Your task to perform on an android device: open app "HBO Max: Stream TV & Movies" (install if not already installed) Image 0: 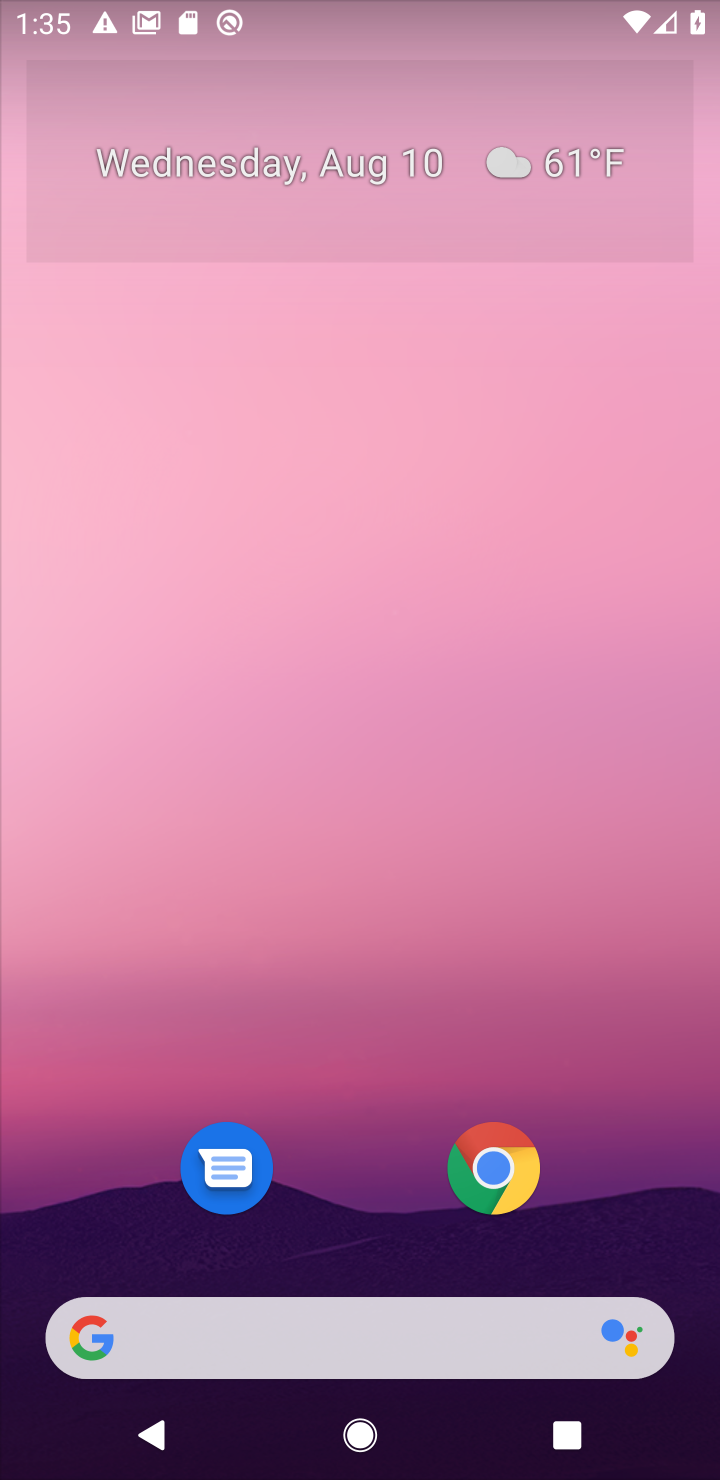
Step 0: drag from (336, 1344) to (321, 373)
Your task to perform on an android device: open app "HBO Max: Stream TV & Movies" (install if not already installed) Image 1: 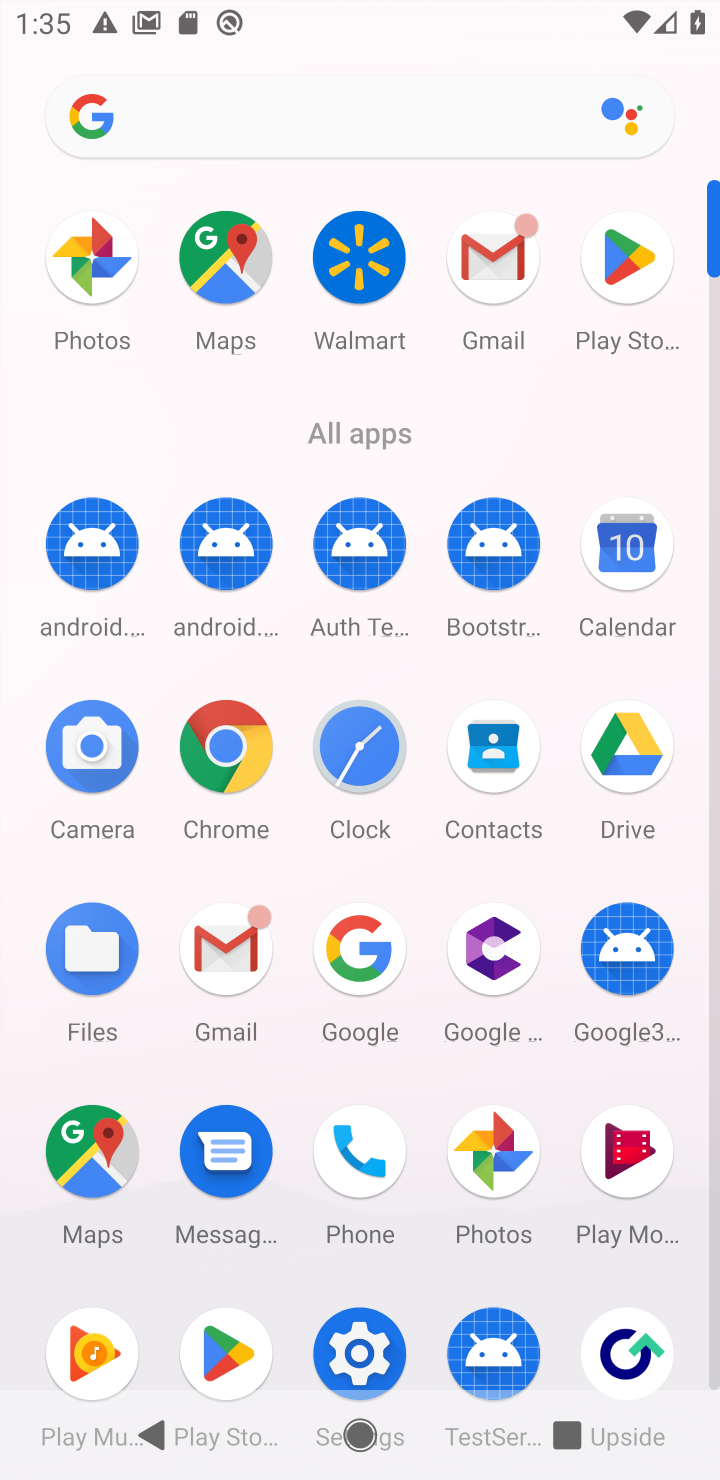
Step 1: click (622, 263)
Your task to perform on an android device: open app "HBO Max: Stream TV & Movies" (install if not already installed) Image 2: 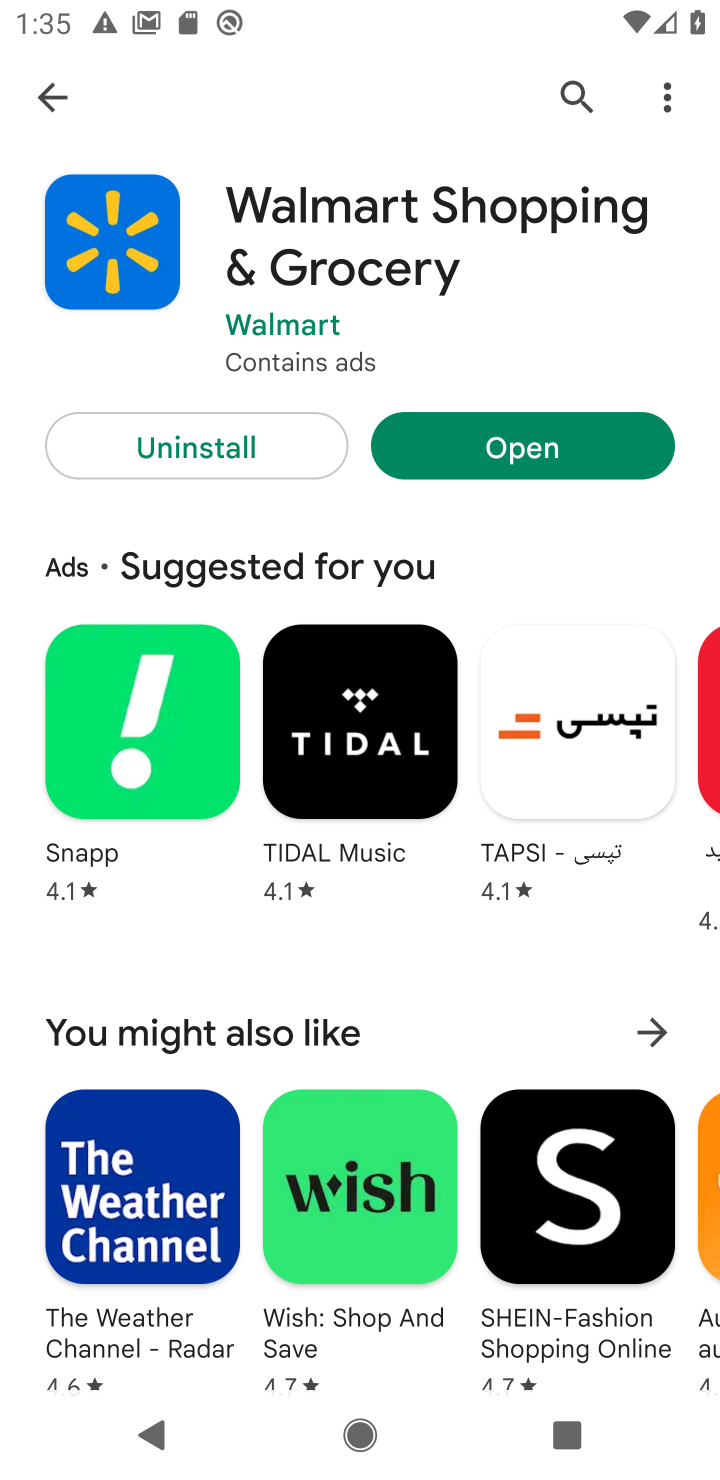
Step 2: press back button
Your task to perform on an android device: open app "HBO Max: Stream TV & Movies" (install if not already installed) Image 3: 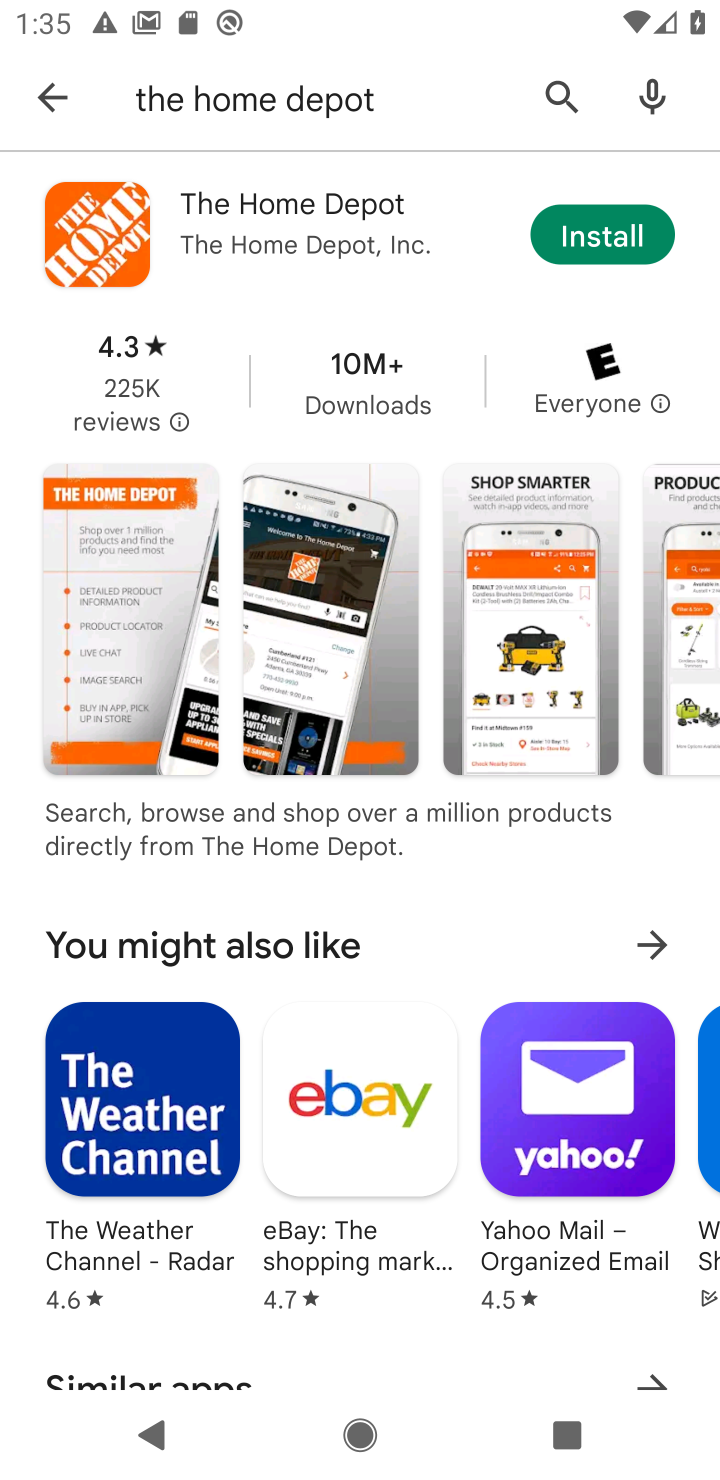
Step 3: press back button
Your task to perform on an android device: open app "HBO Max: Stream TV & Movies" (install if not already installed) Image 4: 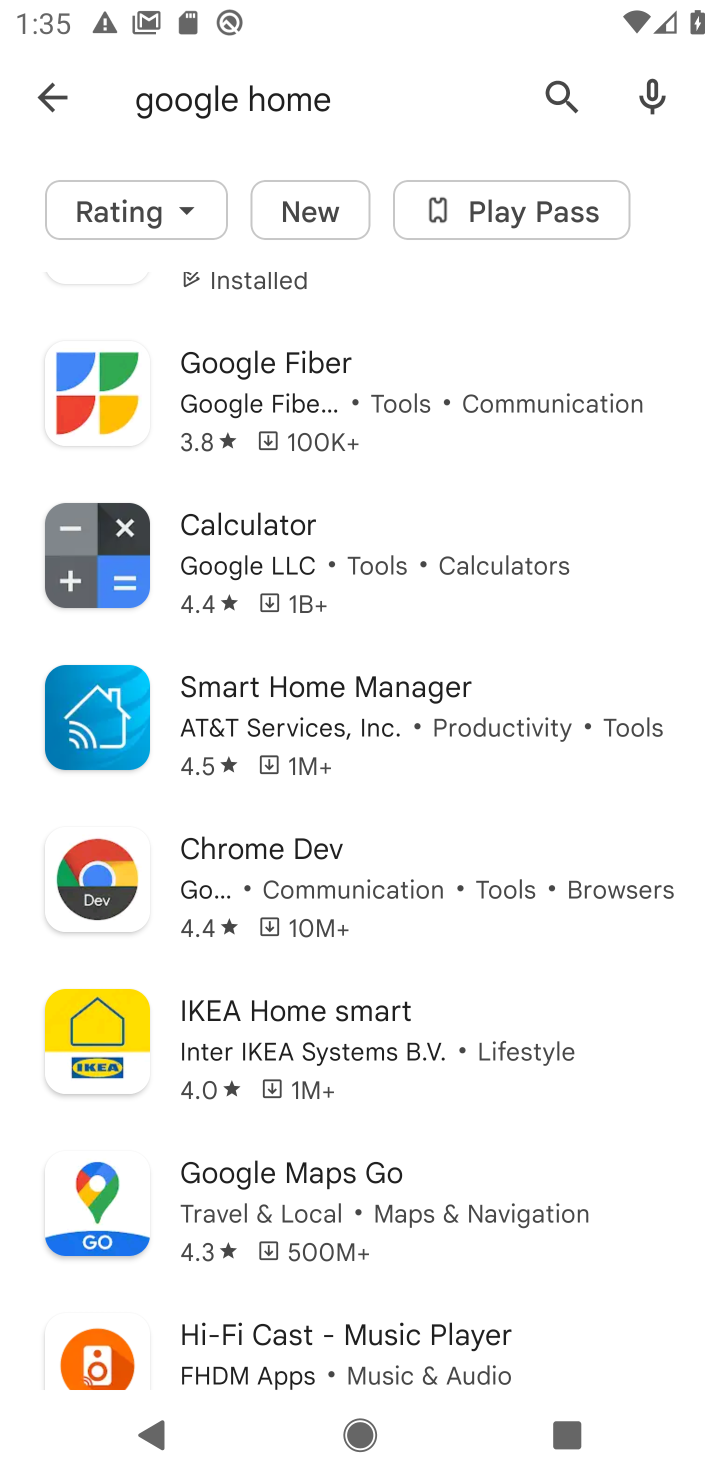
Step 4: press back button
Your task to perform on an android device: open app "HBO Max: Stream TV & Movies" (install if not already installed) Image 5: 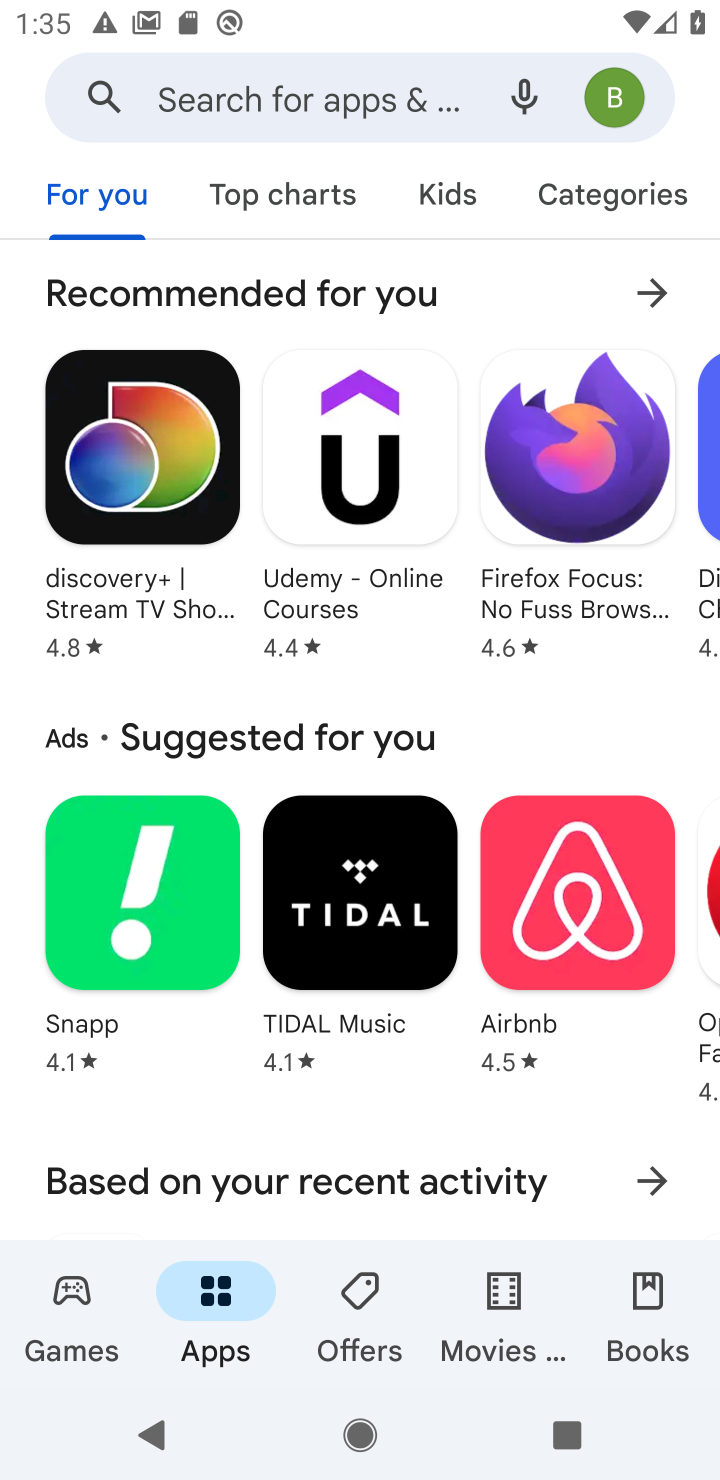
Step 5: click (352, 104)
Your task to perform on an android device: open app "HBO Max: Stream TV & Movies" (install if not already installed) Image 6: 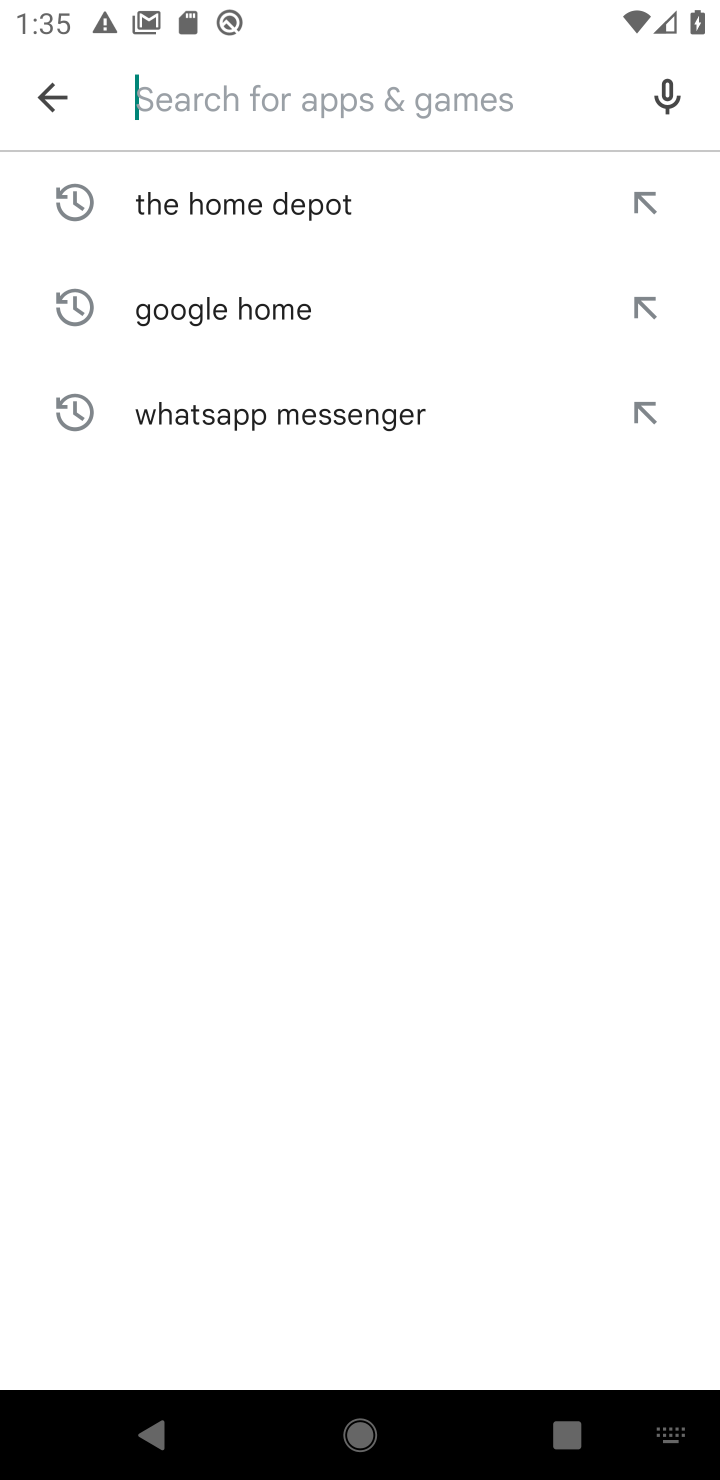
Step 6: type "HBO Max: Stream TV & Movies"
Your task to perform on an android device: open app "HBO Max: Stream TV & Movies" (install if not already installed) Image 7: 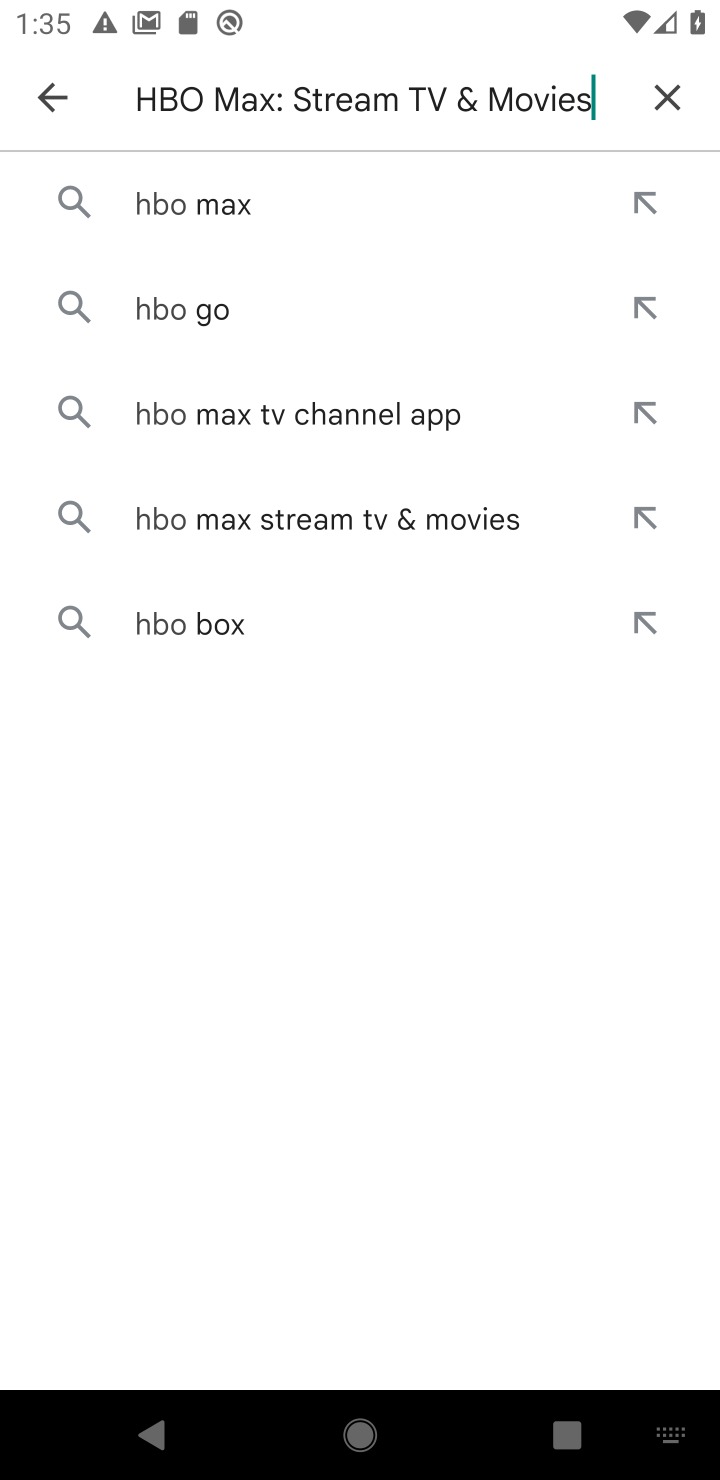
Step 7: type ""
Your task to perform on an android device: open app "HBO Max: Stream TV & Movies" (install if not already installed) Image 8: 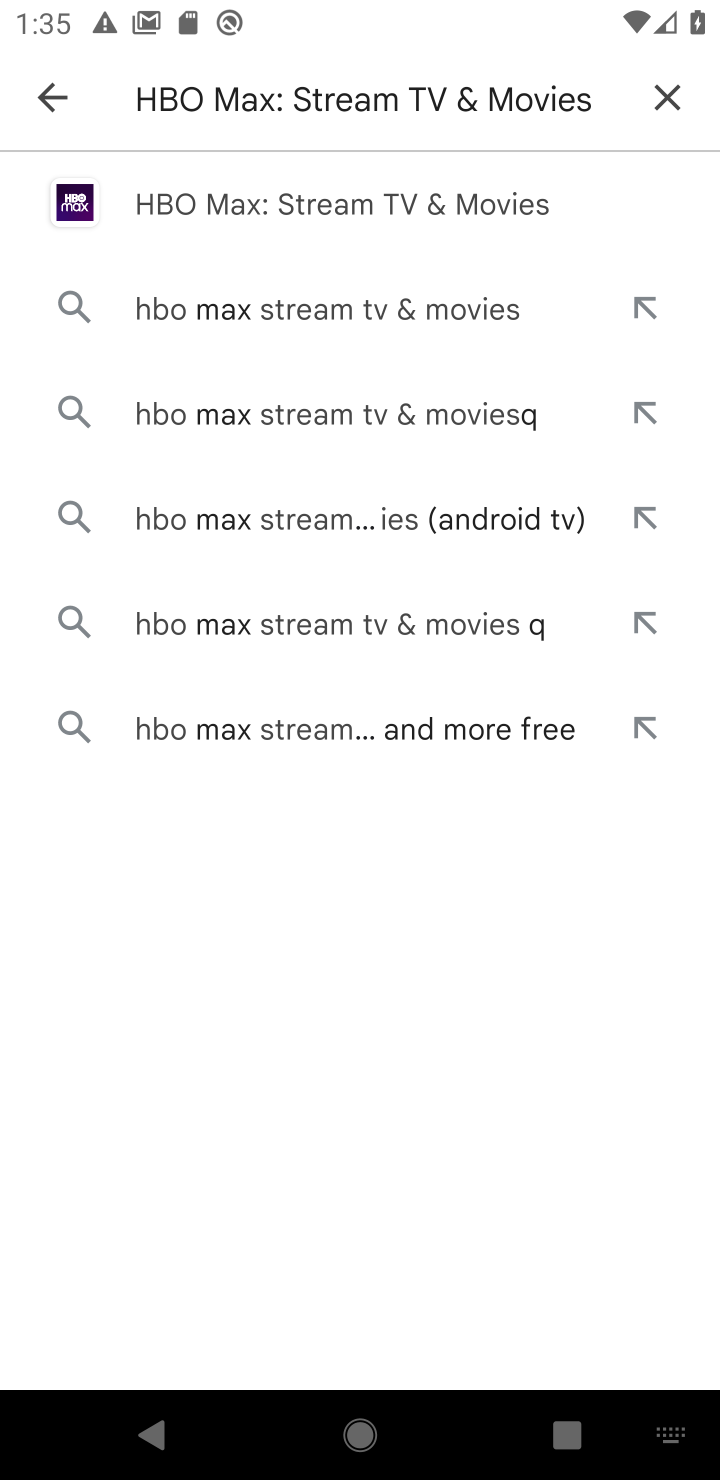
Step 8: click (341, 216)
Your task to perform on an android device: open app "HBO Max: Stream TV & Movies" (install if not already installed) Image 9: 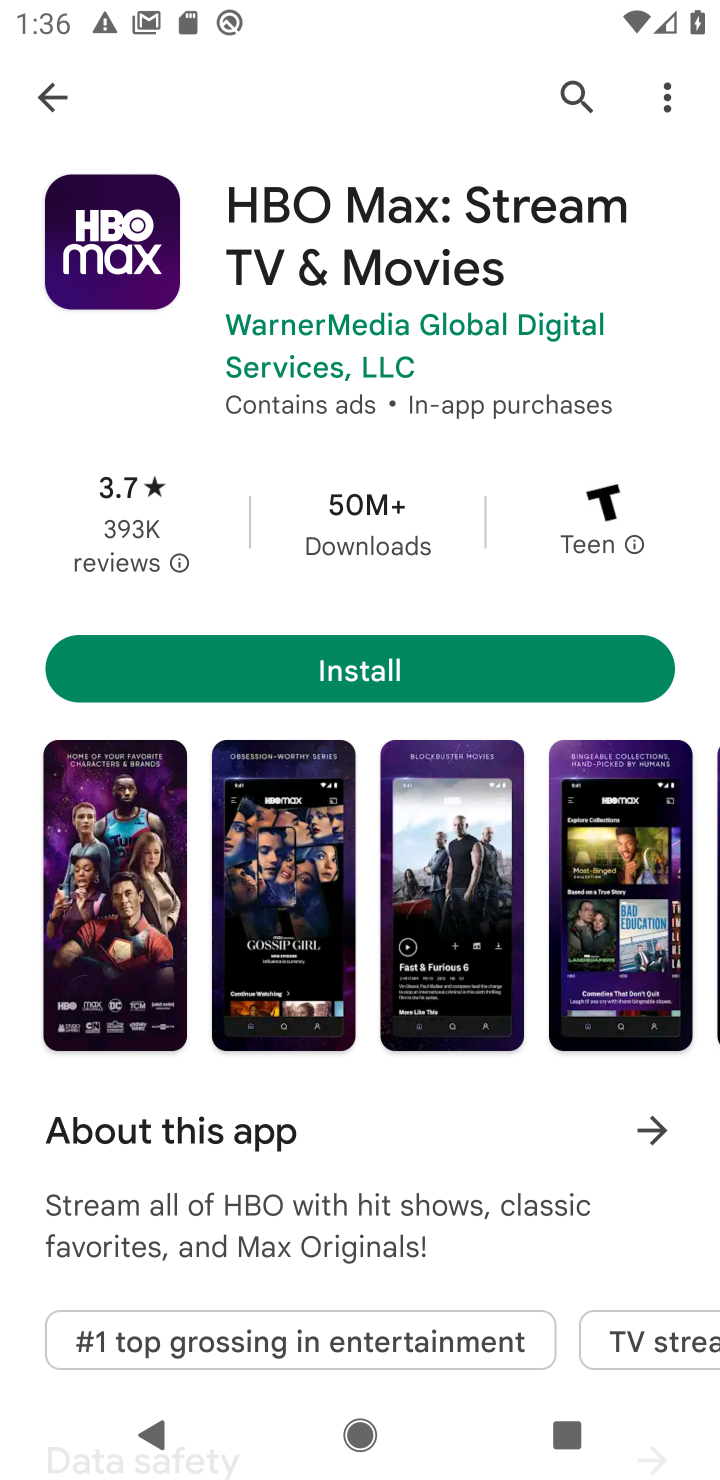
Step 9: click (378, 666)
Your task to perform on an android device: open app "HBO Max: Stream TV & Movies" (install if not already installed) Image 10: 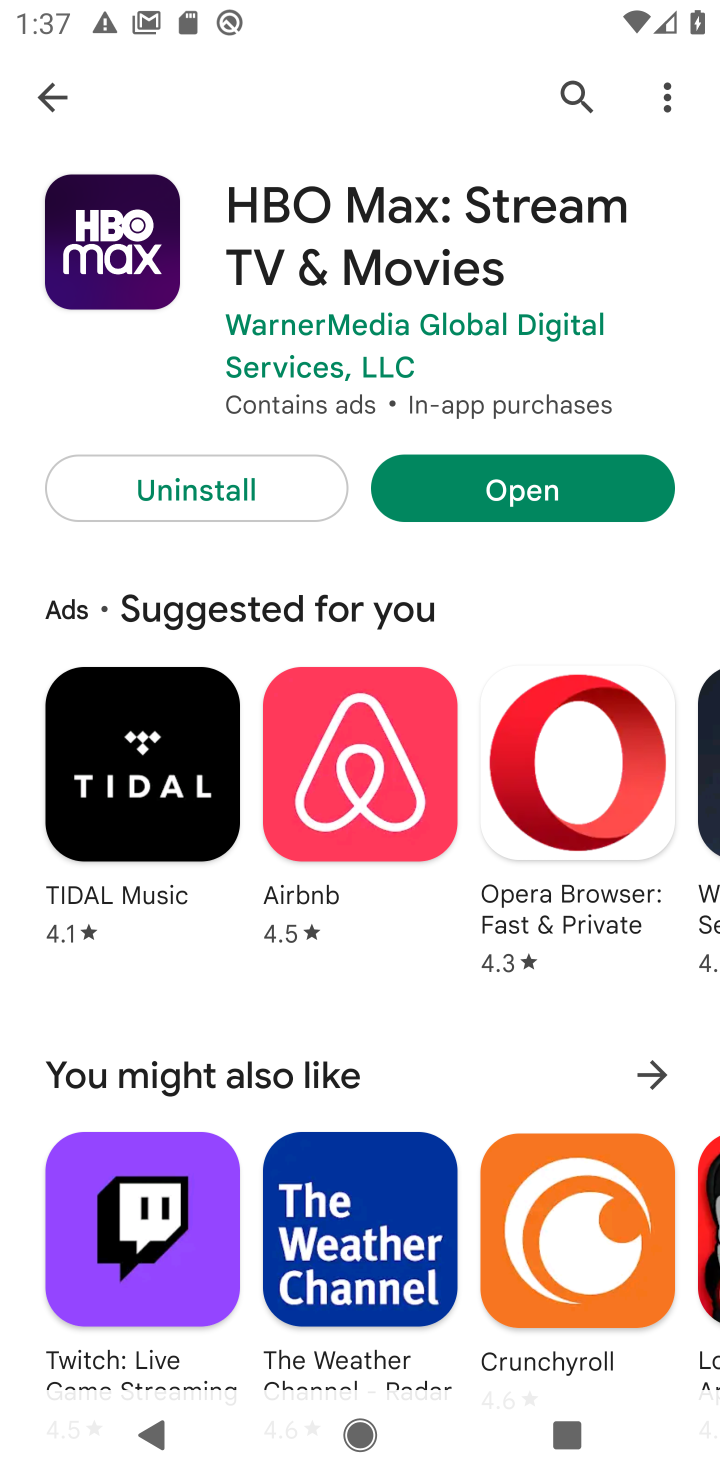
Step 10: click (542, 499)
Your task to perform on an android device: open app "HBO Max: Stream TV & Movies" (install if not already installed) Image 11: 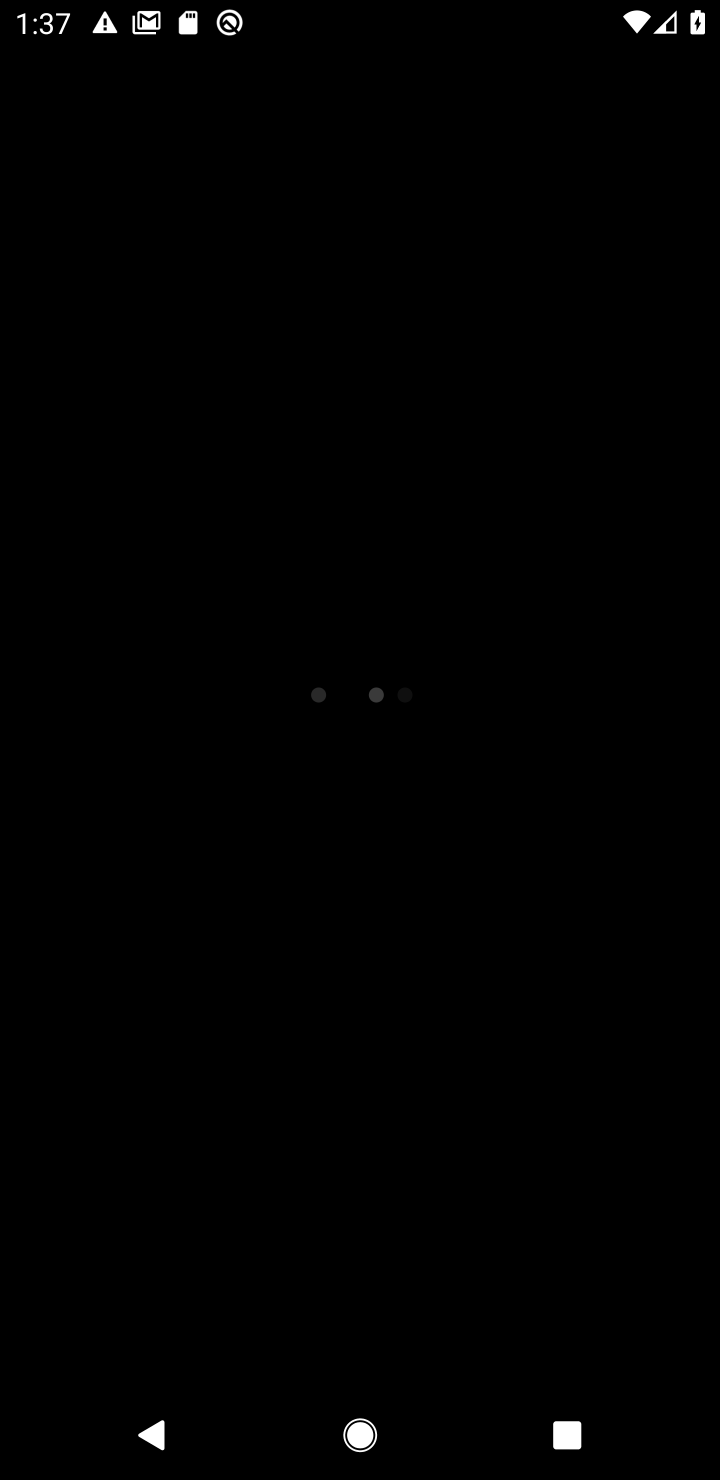
Step 11: task complete